Your task to perform on an android device: turn smart compose on in the gmail app Image 0: 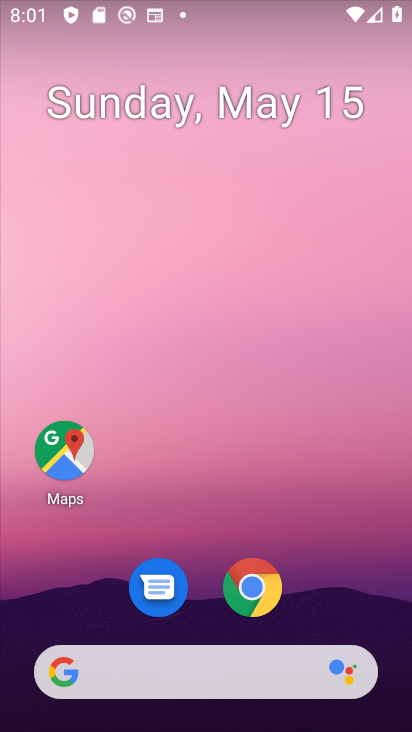
Step 0: drag from (212, 574) to (267, 109)
Your task to perform on an android device: turn smart compose on in the gmail app Image 1: 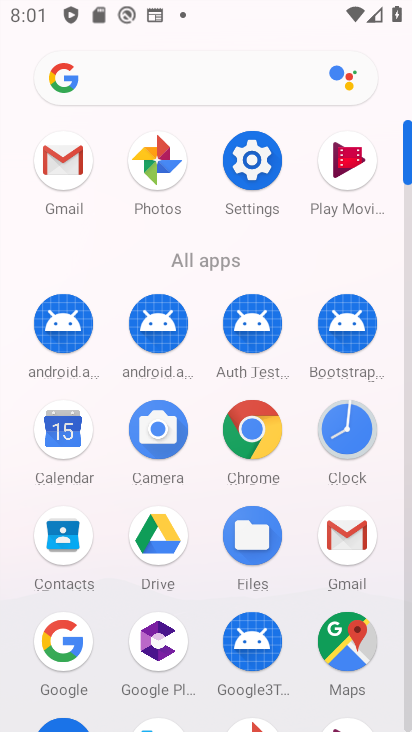
Step 1: click (348, 554)
Your task to perform on an android device: turn smart compose on in the gmail app Image 2: 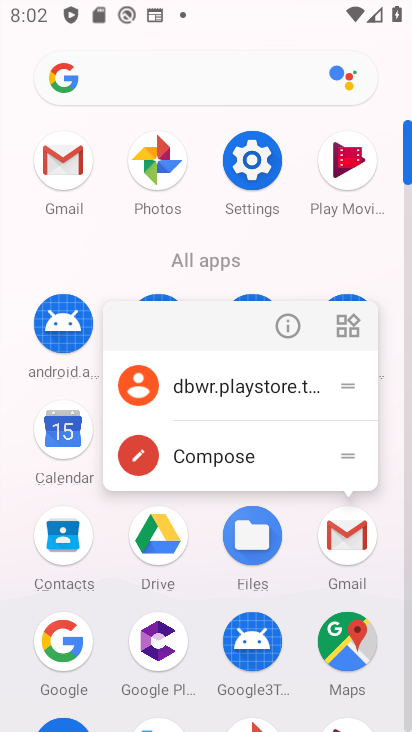
Step 2: click (358, 537)
Your task to perform on an android device: turn smart compose on in the gmail app Image 3: 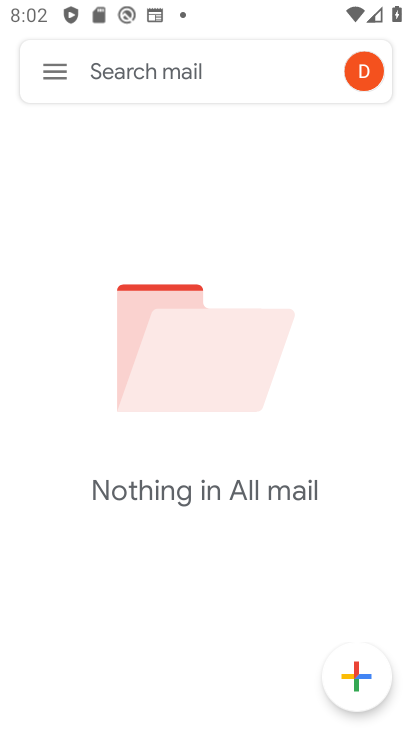
Step 3: click (60, 69)
Your task to perform on an android device: turn smart compose on in the gmail app Image 4: 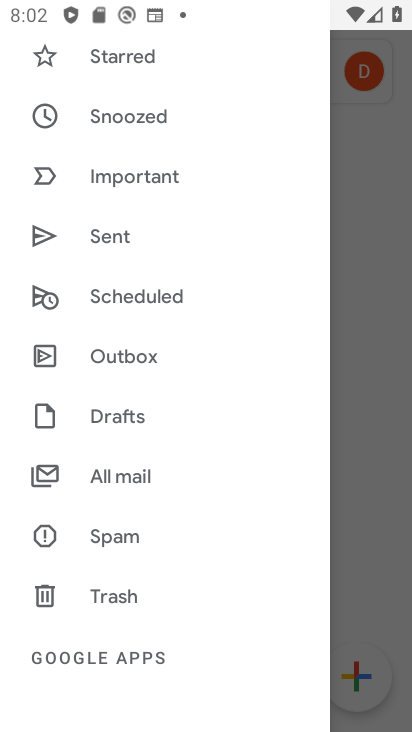
Step 4: drag from (108, 582) to (220, 234)
Your task to perform on an android device: turn smart compose on in the gmail app Image 5: 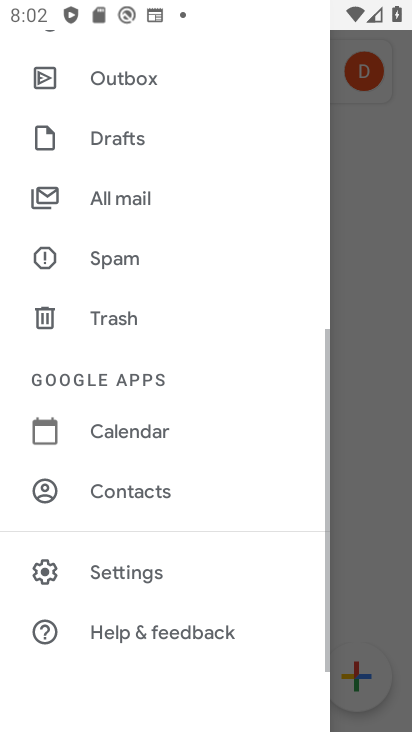
Step 5: click (103, 576)
Your task to perform on an android device: turn smart compose on in the gmail app Image 6: 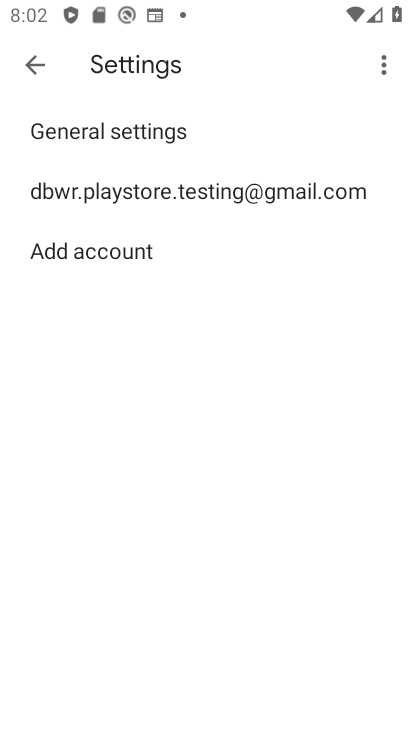
Step 6: click (163, 181)
Your task to perform on an android device: turn smart compose on in the gmail app Image 7: 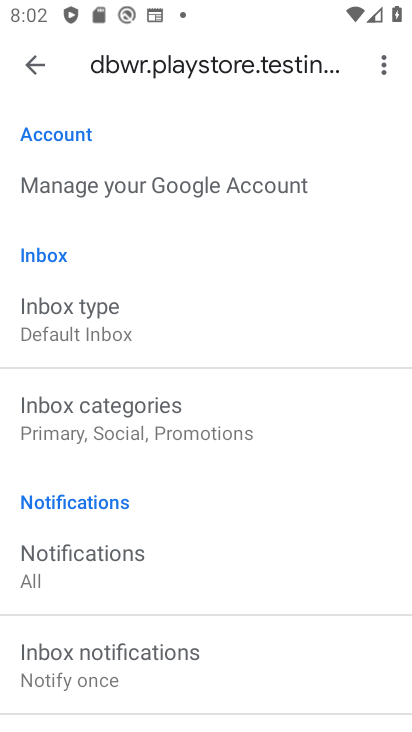
Step 7: task complete